Your task to perform on an android device: Open ESPN.com Image 0: 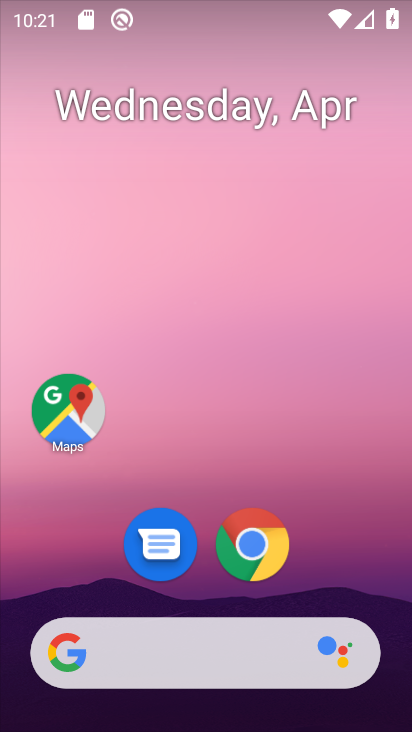
Step 0: click (237, 559)
Your task to perform on an android device: Open ESPN.com Image 1: 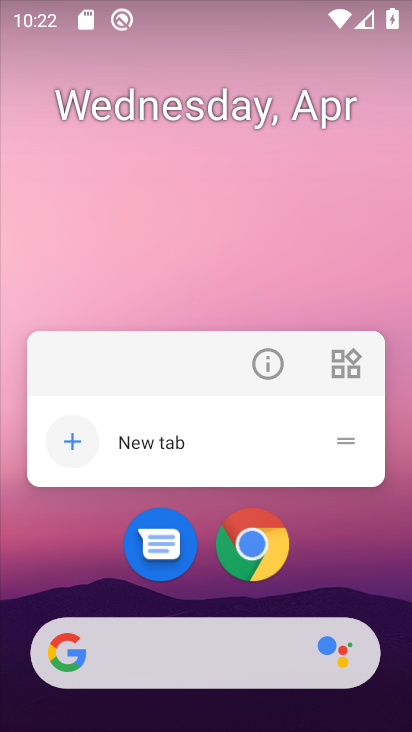
Step 1: click (369, 511)
Your task to perform on an android device: Open ESPN.com Image 2: 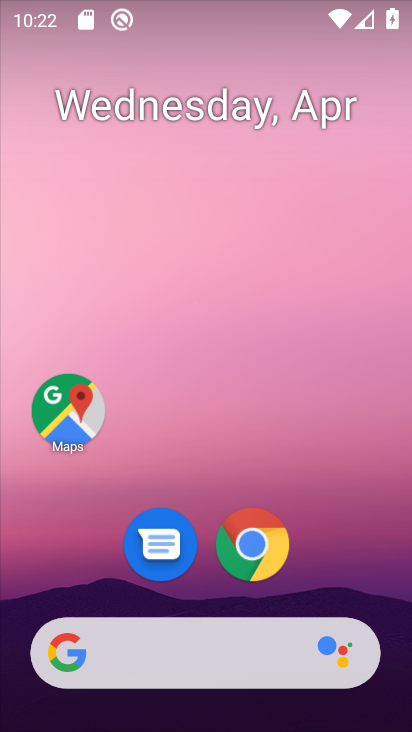
Step 2: click (240, 549)
Your task to perform on an android device: Open ESPN.com Image 3: 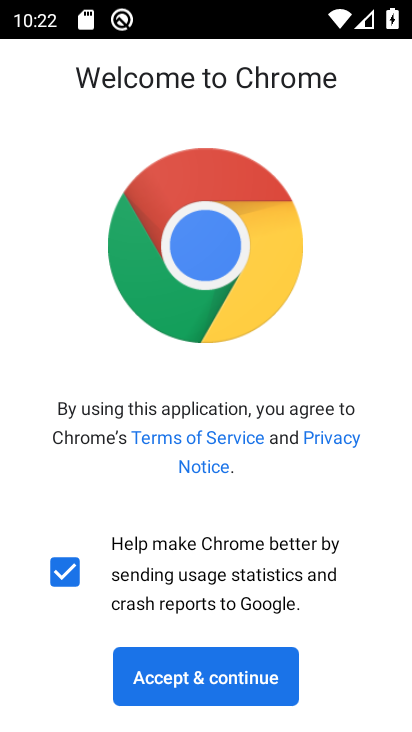
Step 3: click (246, 686)
Your task to perform on an android device: Open ESPN.com Image 4: 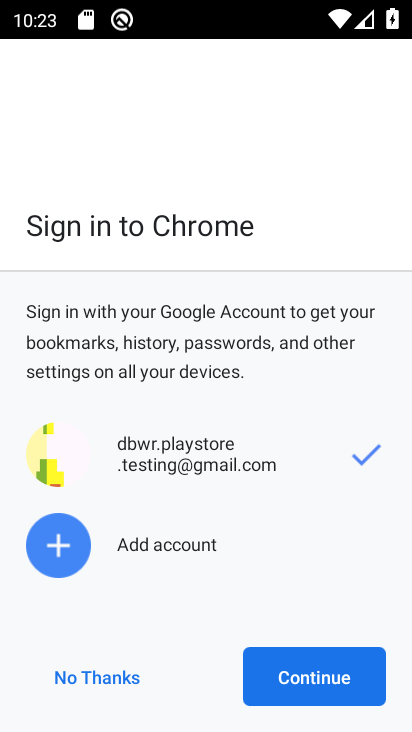
Step 4: click (301, 675)
Your task to perform on an android device: Open ESPN.com Image 5: 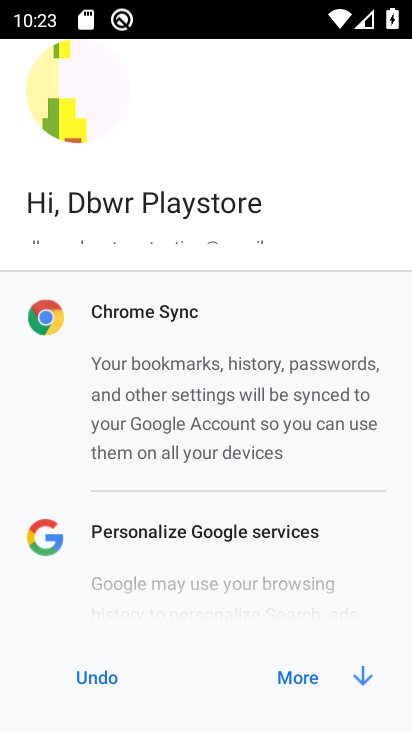
Step 5: click (301, 669)
Your task to perform on an android device: Open ESPN.com Image 6: 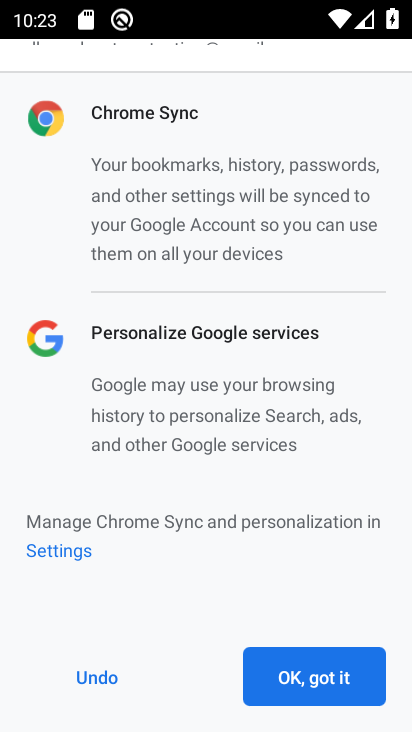
Step 6: click (301, 669)
Your task to perform on an android device: Open ESPN.com Image 7: 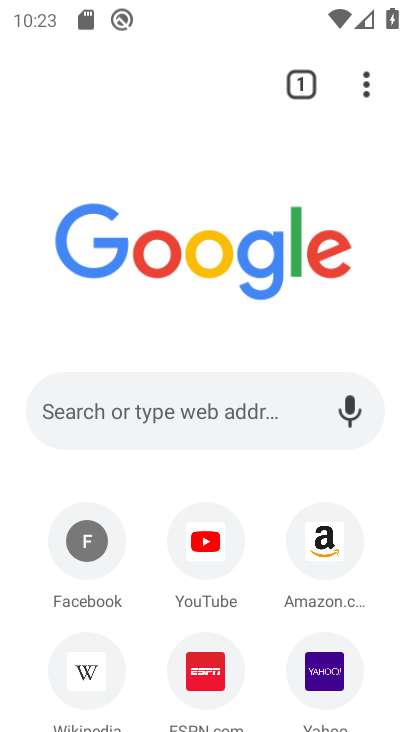
Step 7: click (203, 668)
Your task to perform on an android device: Open ESPN.com Image 8: 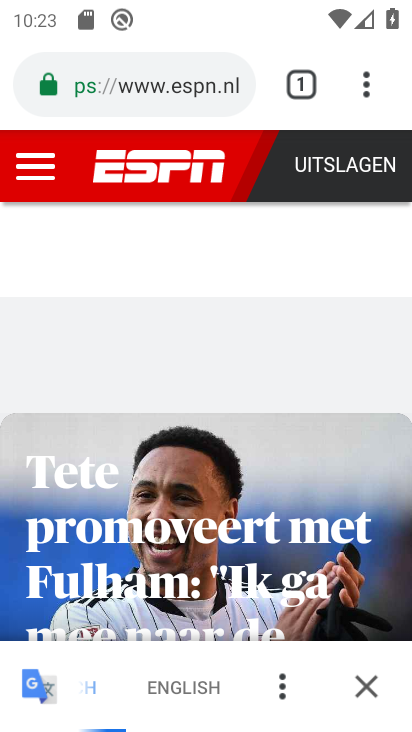
Step 8: task complete